Your task to perform on an android device: delete location history Image 0: 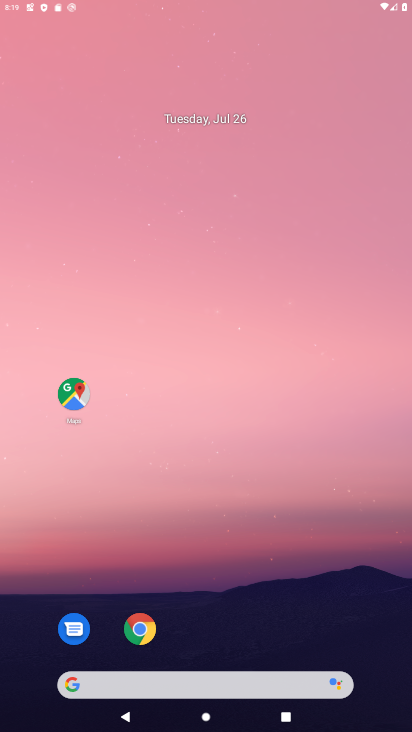
Step 0: press home button
Your task to perform on an android device: delete location history Image 1: 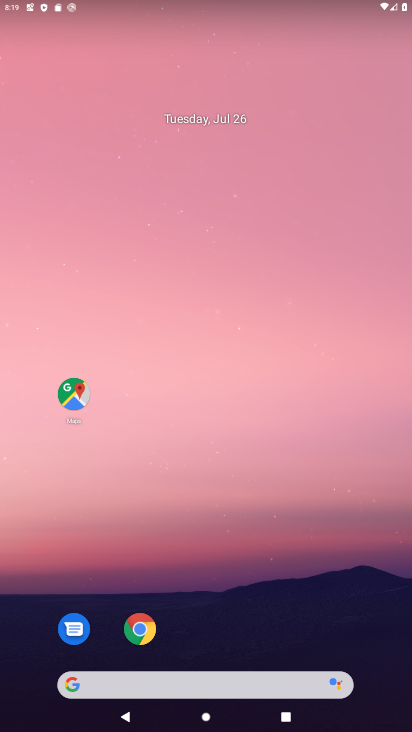
Step 1: click (72, 390)
Your task to perform on an android device: delete location history Image 2: 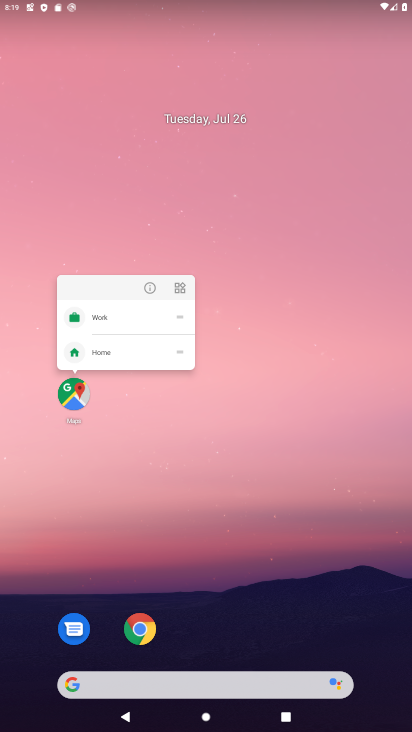
Step 2: click (74, 390)
Your task to perform on an android device: delete location history Image 3: 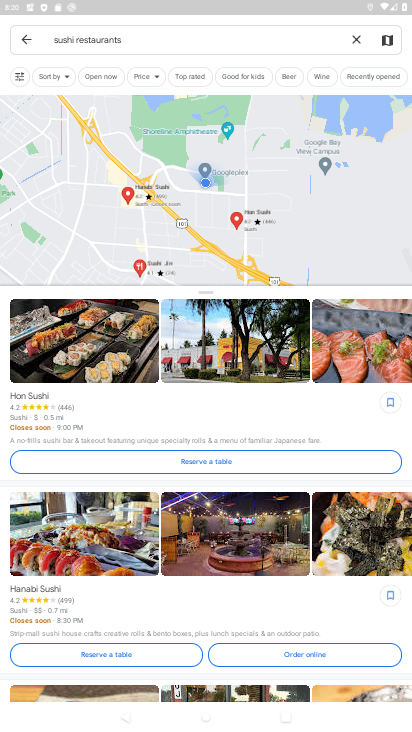
Step 3: click (22, 33)
Your task to perform on an android device: delete location history Image 4: 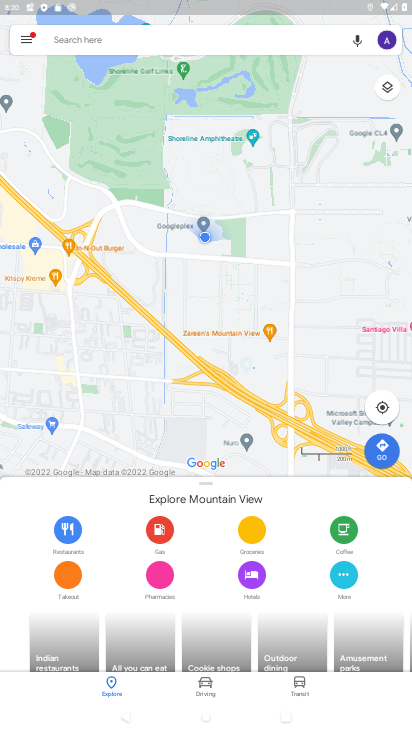
Step 4: click (27, 41)
Your task to perform on an android device: delete location history Image 5: 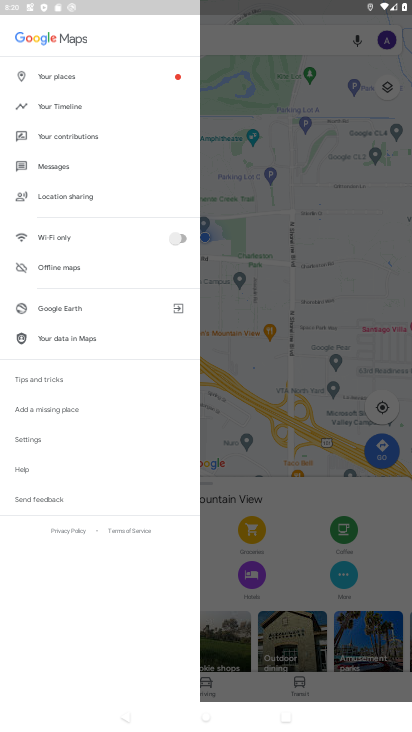
Step 5: click (76, 108)
Your task to perform on an android device: delete location history Image 6: 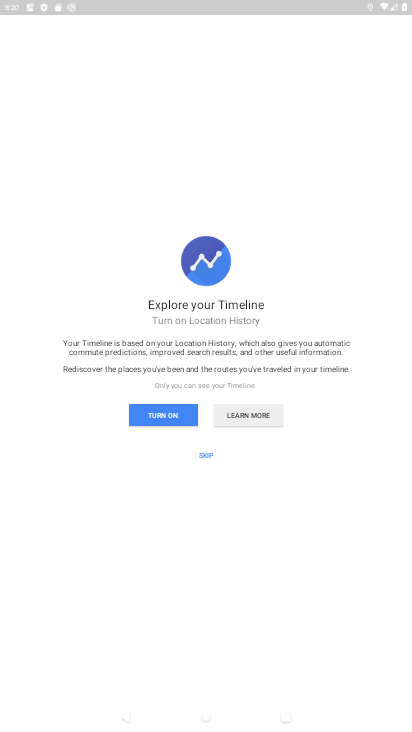
Step 6: click (166, 408)
Your task to perform on an android device: delete location history Image 7: 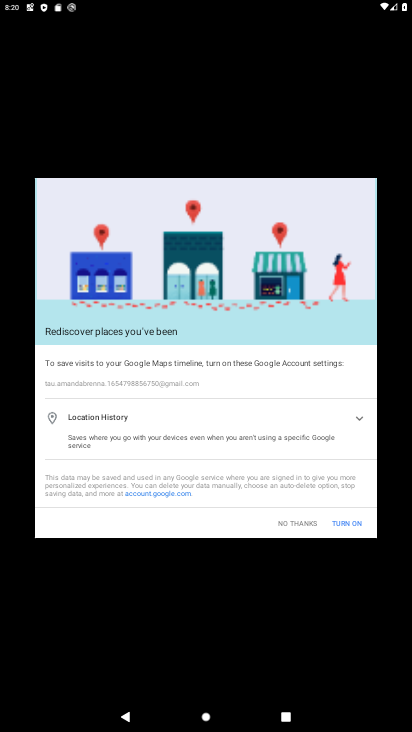
Step 7: click (345, 525)
Your task to perform on an android device: delete location history Image 8: 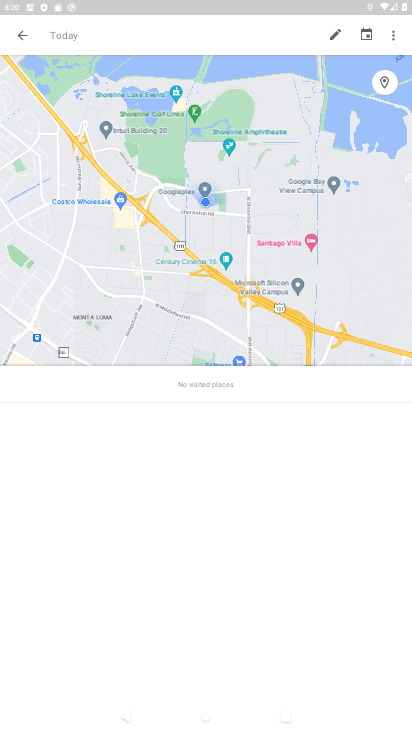
Step 8: click (390, 32)
Your task to perform on an android device: delete location history Image 9: 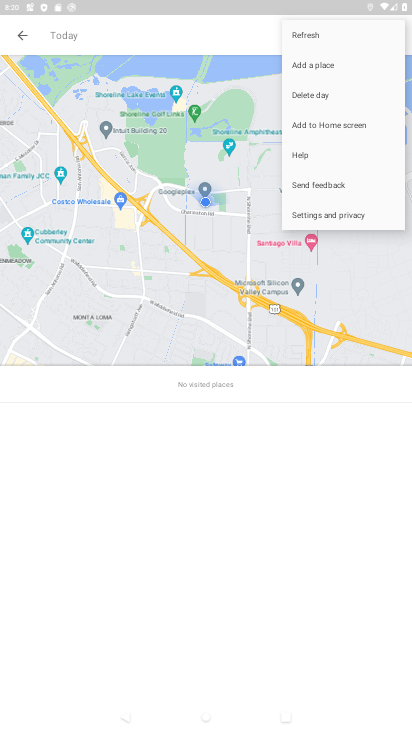
Step 9: click (351, 217)
Your task to perform on an android device: delete location history Image 10: 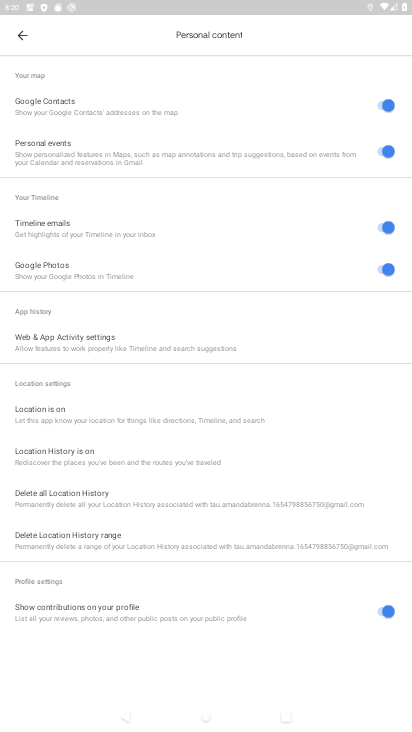
Step 10: click (113, 491)
Your task to perform on an android device: delete location history Image 11: 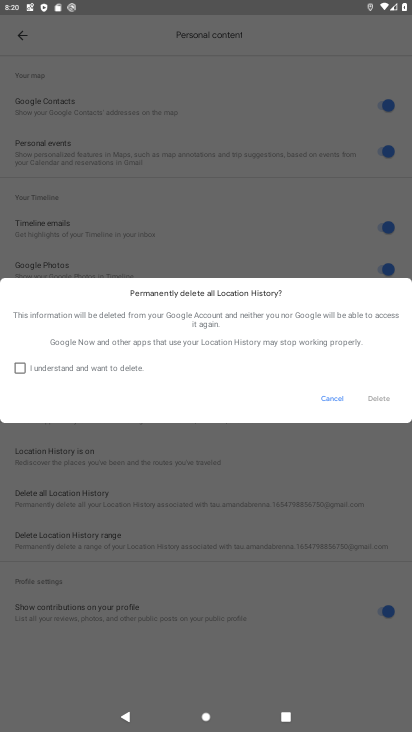
Step 11: click (14, 363)
Your task to perform on an android device: delete location history Image 12: 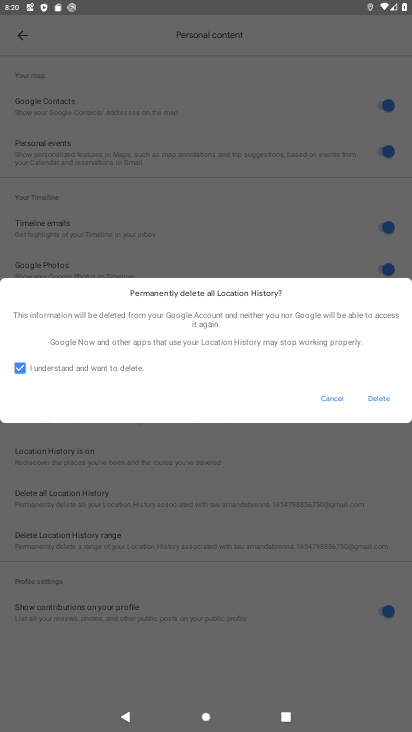
Step 12: click (382, 394)
Your task to perform on an android device: delete location history Image 13: 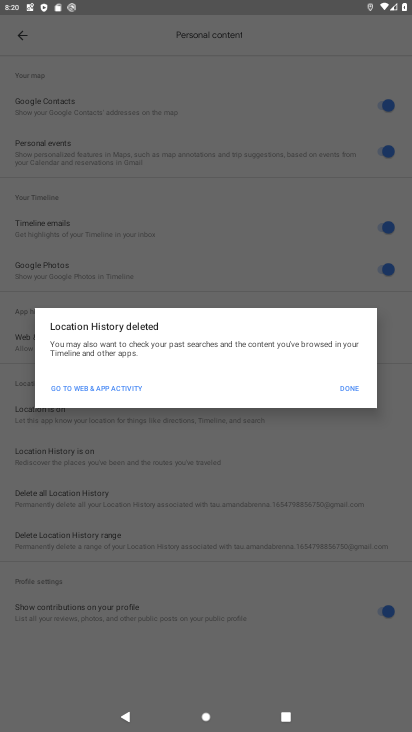
Step 13: task complete